Your task to perform on an android device: turn pop-ups off in chrome Image 0: 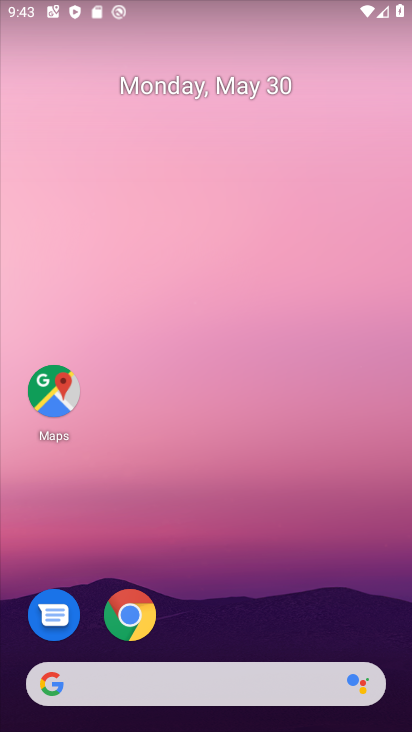
Step 0: drag from (289, 587) to (250, 7)
Your task to perform on an android device: turn pop-ups off in chrome Image 1: 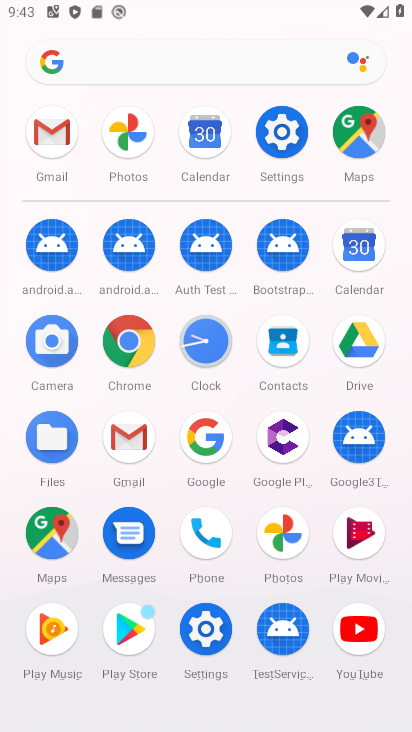
Step 1: click (123, 338)
Your task to perform on an android device: turn pop-ups off in chrome Image 2: 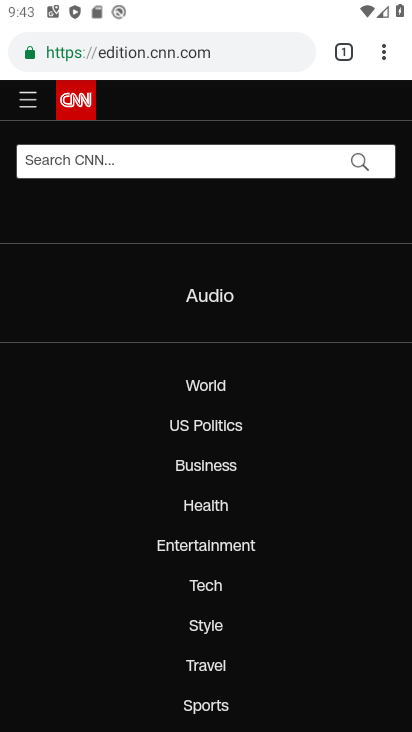
Step 2: click (378, 49)
Your task to perform on an android device: turn pop-ups off in chrome Image 3: 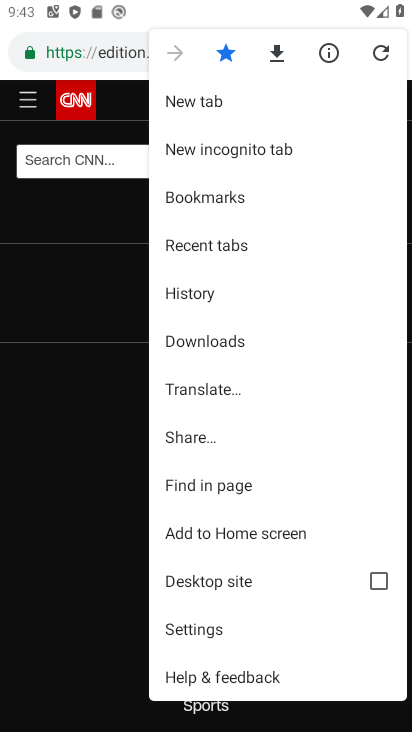
Step 3: click (278, 625)
Your task to perform on an android device: turn pop-ups off in chrome Image 4: 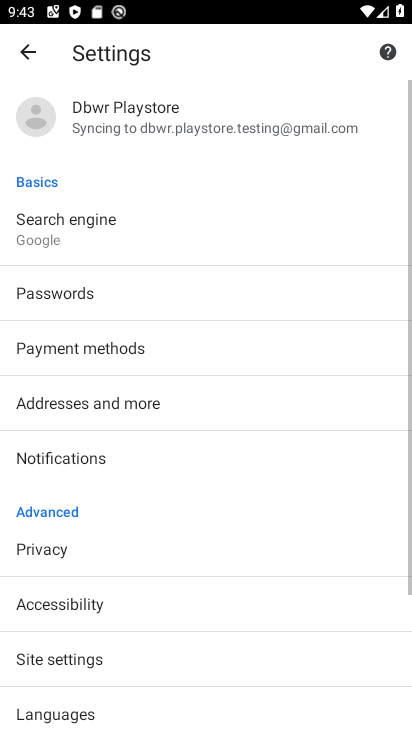
Step 4: drag from (267, 632) to (297, 193)
Your task to perform on an android device: turn pop-ups off in chrome Image 5: 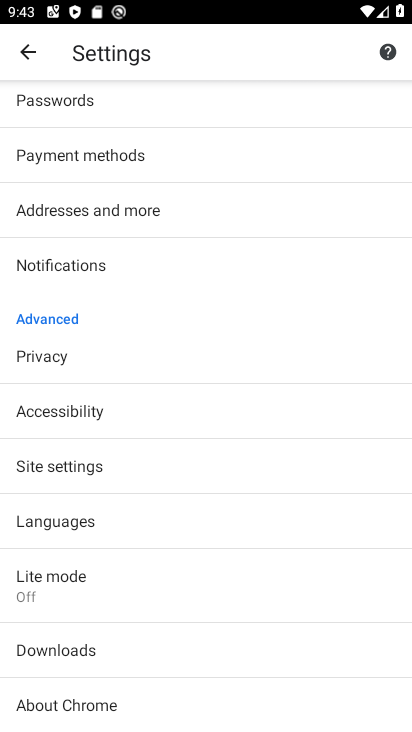
Step 5: click (153, 468)
Your task to perform on an android device: turn pop-ups off in chrome Image 6: 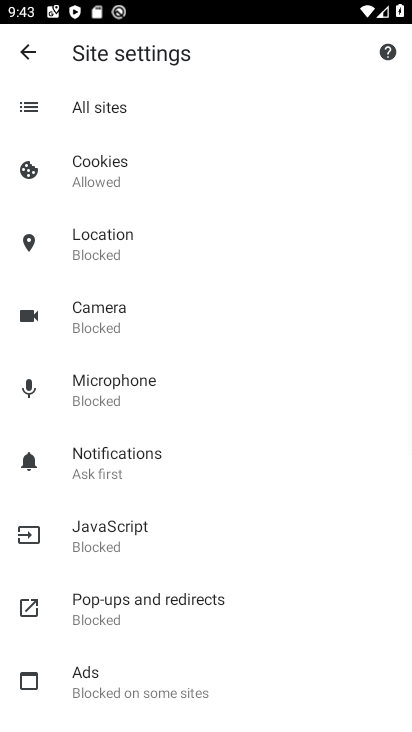
Step 6: click (202, 597)
Your task to perform on an android device: turn pop-ups off in chrome Image 7: 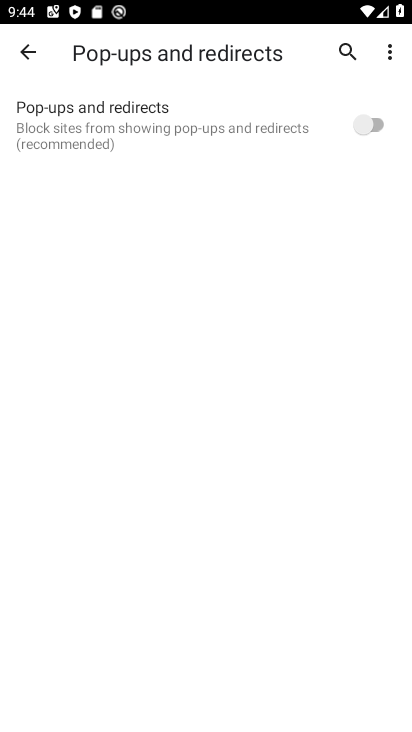
Step 7: task complete